Your task to perform on an android device: see sites visited before in the chrome app Image 0: 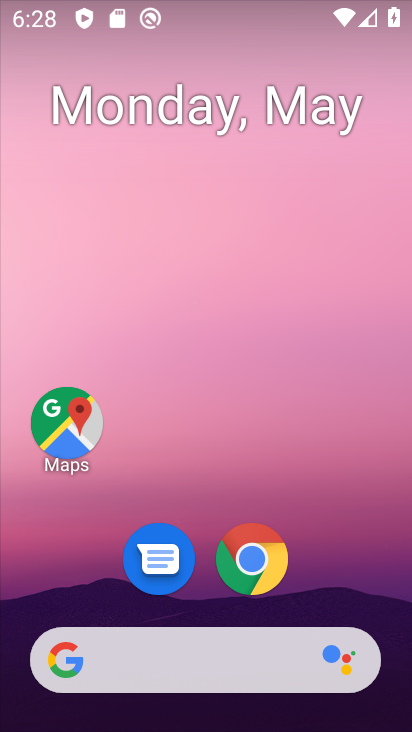
Step 0: drag from (394, 630) to (356, 18)
Your task to perform on an android device: see sites visited before in the chrome app Image 1: 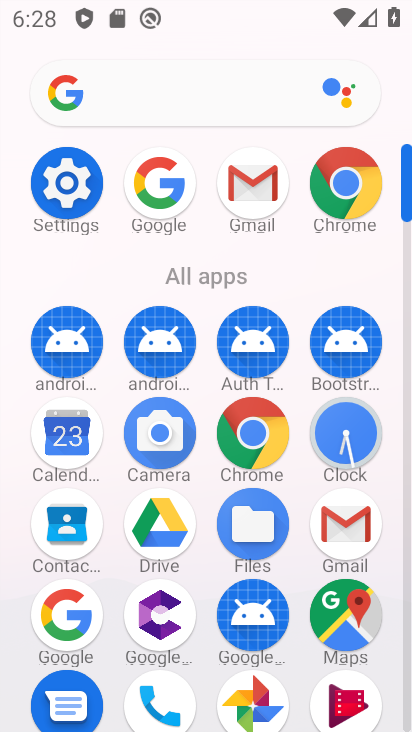
Step 1: click (346, 193)
Your task to perform on an android device: see sites visited before in the chrome app Image 2: 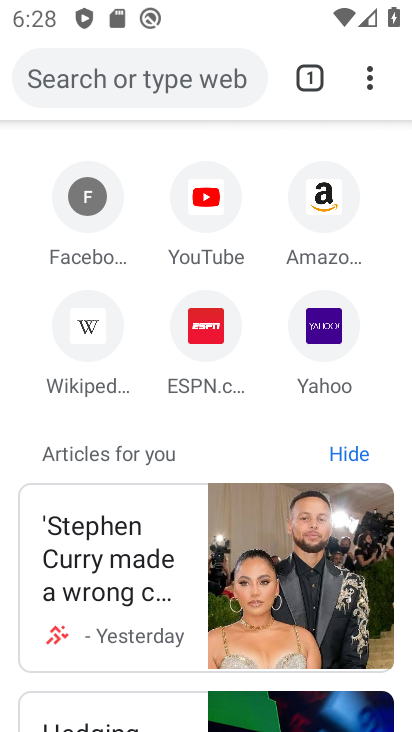
Step 2: click (383, 72)
Your task to perform on an android device: see sites visited before in the chrome app Image 3: 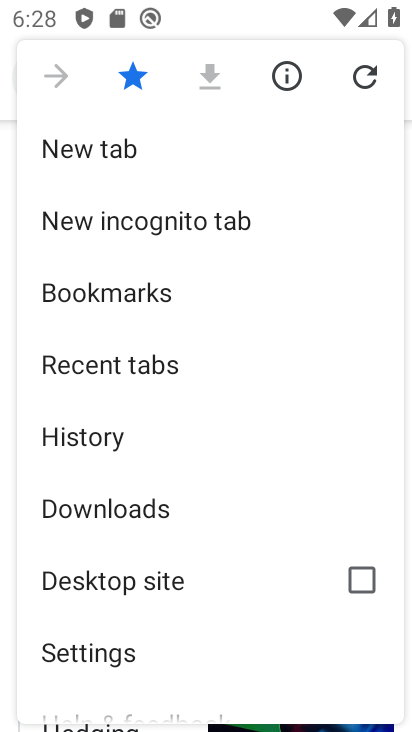
Step 3: click (172, 439)
Your task to perform on an android device: see sites visited before in the chrome app Image 4: 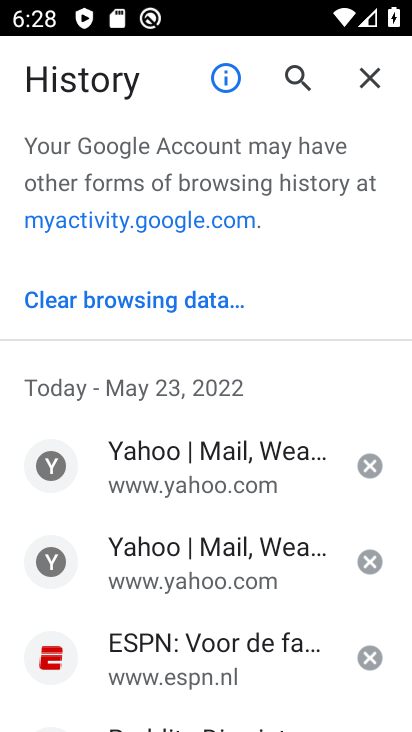
Step 4: click (203, 455)
Your task to perform on an android device: see sites visited before in the chrome app Image 5: 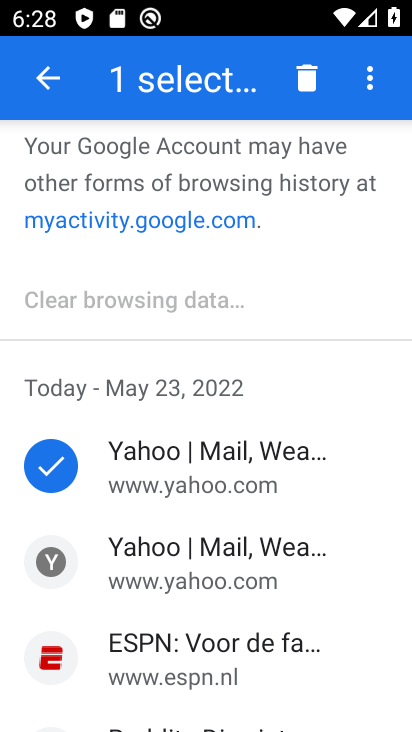
Step 5: click (203, 455)
Your task to perform on an android device: see sites visited before in the chrome app Image 6: 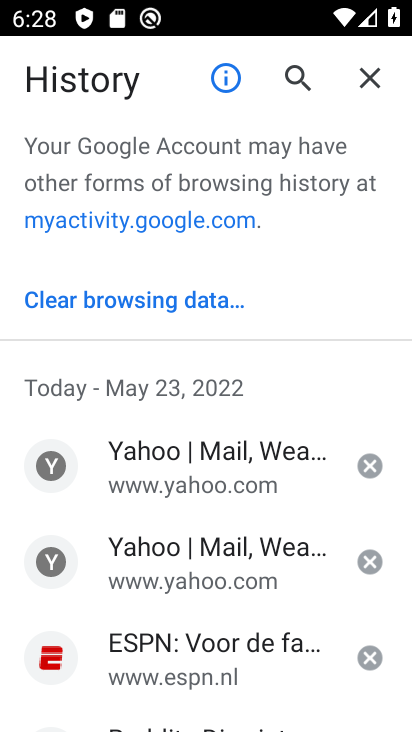
Step 6: click (203, 455)
Your task to perform on an android device: see sites visited before in the chrome app Image 7: 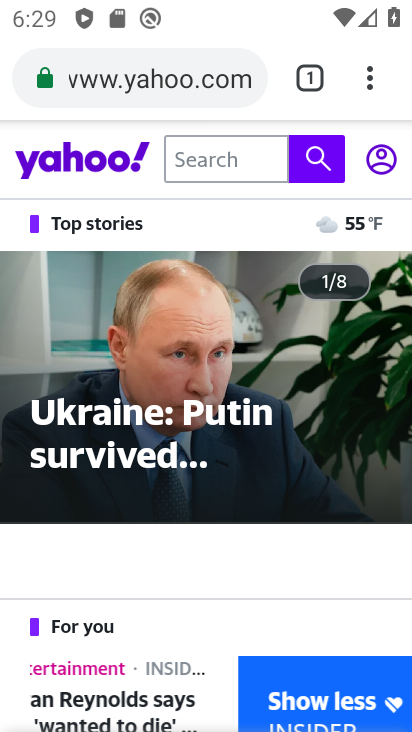
Step 7: task complete